Your task to perform on an android device: Open internet settings Image 0: 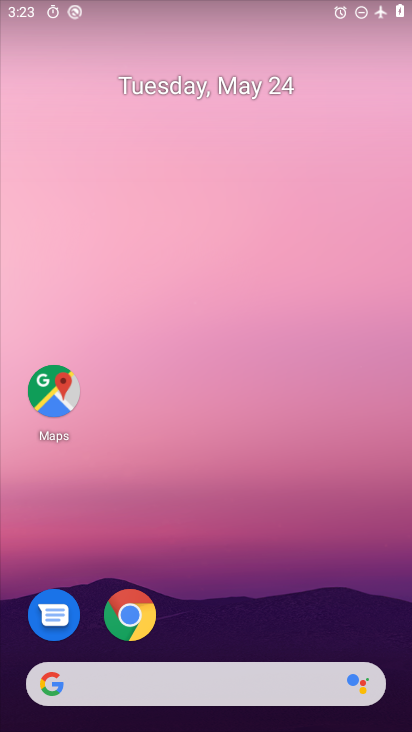
Step 0: drag from (228, 645) to (247, 326)
Your task to perform on an android device: Open internet settings Image 1: 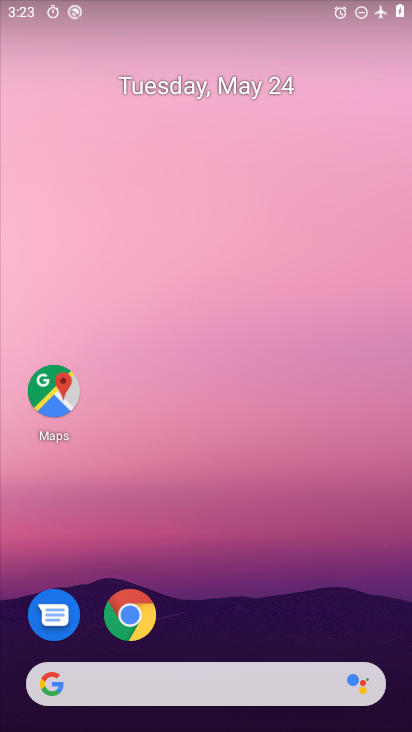
Step 1: drag from (179, 656) to (257, 227)
Your task to perform on an android device: Open internet settings Image 2: 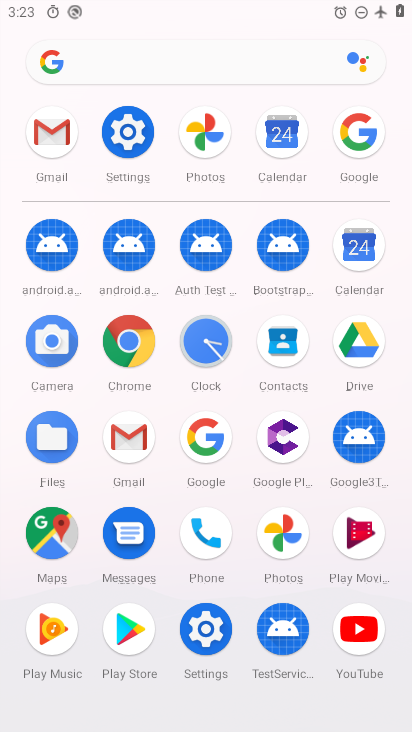
Step 2: click (136, 147)
Your task to perform on an android device: Open internet settings Image 3: 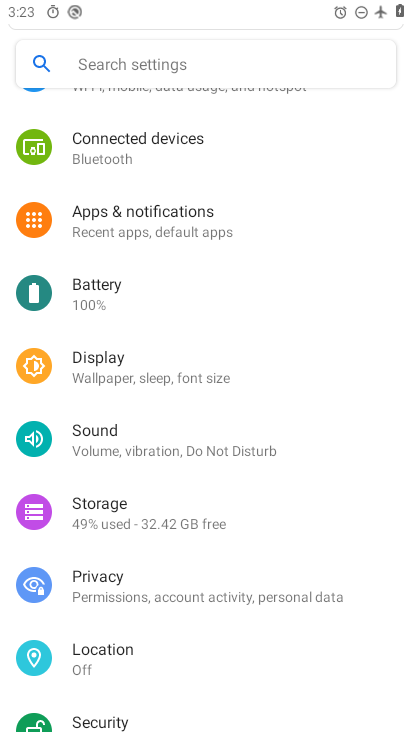
Step 3: drag from (150, 112) to (249, 481)
Your task to perform on an android device: Open internet settings Image 4: 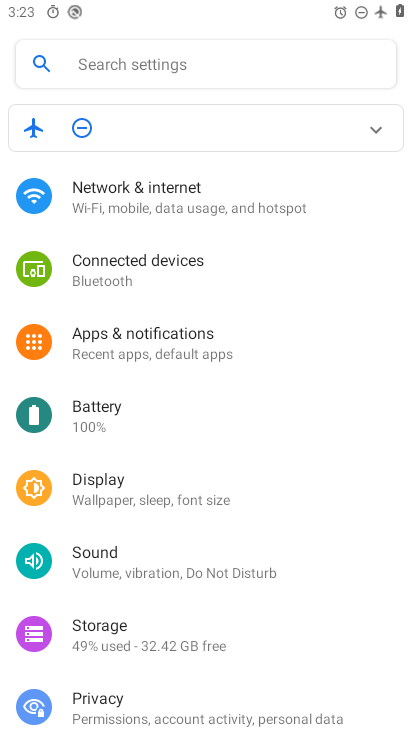
Step 4: click (162, 136)
Your task to perform on an android device: Open internet settings Image 5: 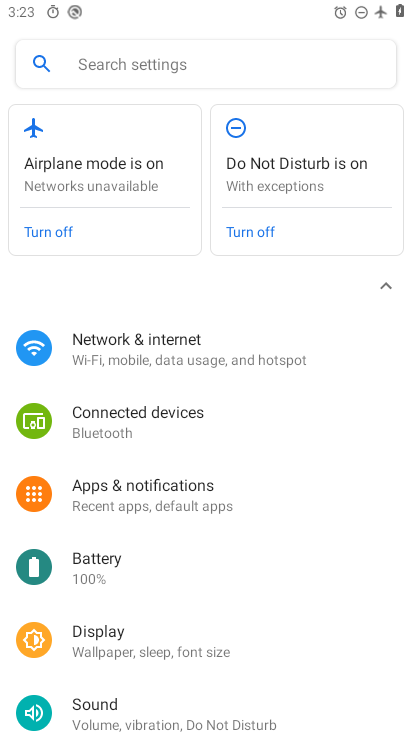
Step 5: click (168, 193)
Your task to perform on an android device: Open internet settings Image 6: 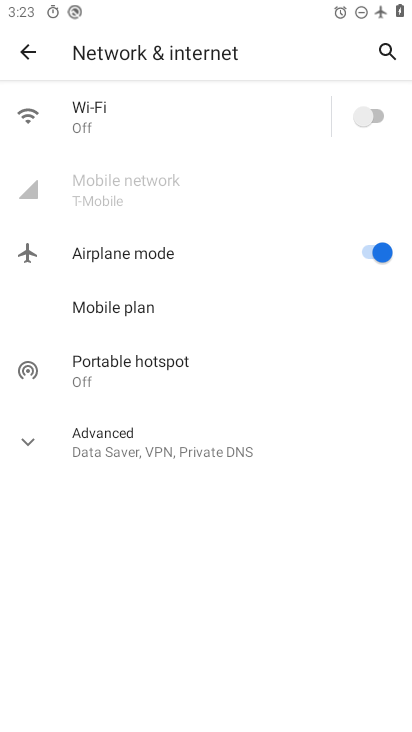
Step 6: click (128, 446)
Your task to perform on an android device: Open internet settings Image 7: 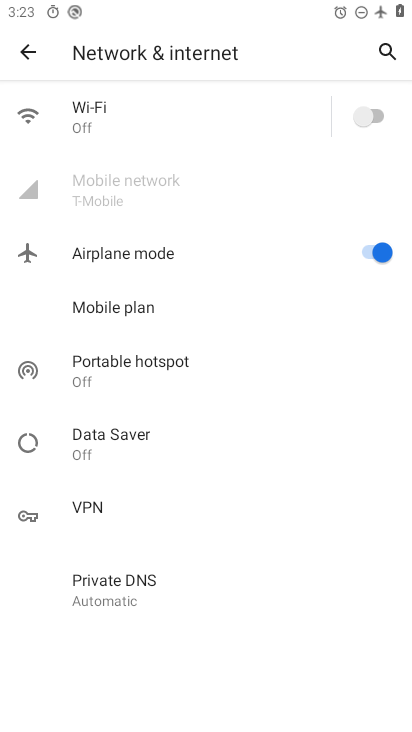
Step 7: task complete